Your task to perform on an android device: Go to Yahoo.com Image 0: 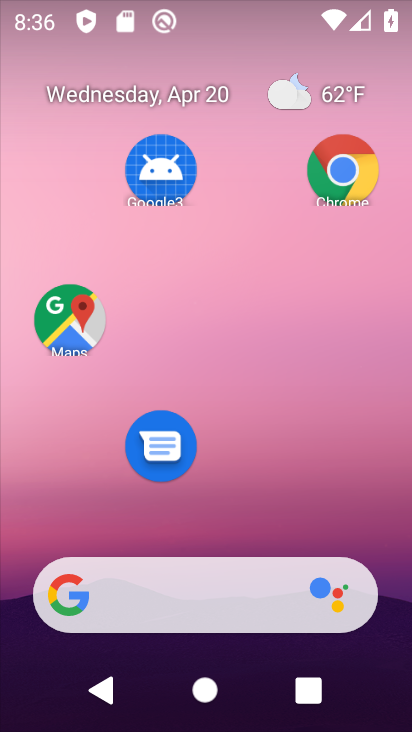
Step 0: click (342, 169)
Your task to perform on an android device: Go to Yahoo.com Image 1: 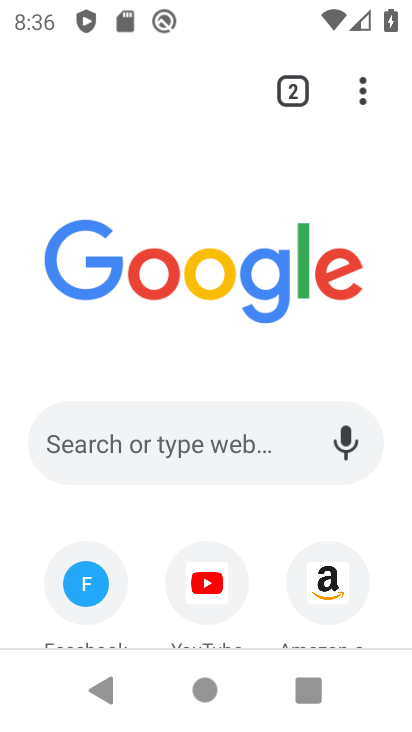
Step 1: drag from (160, 513) to (158, 169)
Your task to perform on an android device: Go to Yahoo.com Image 2: 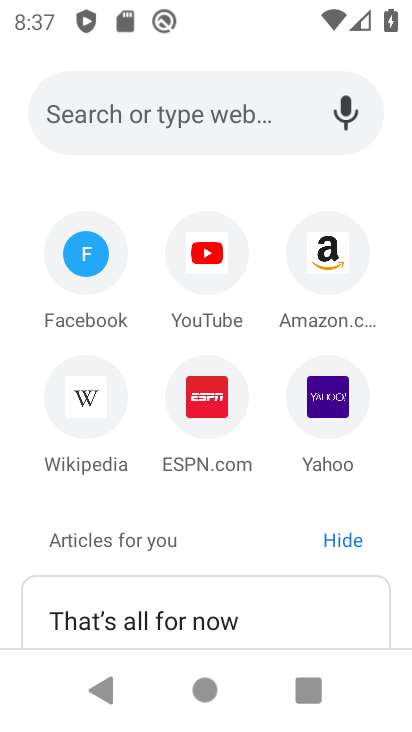
Step 2: click (327, 393)
Your task to perform on an android device: Go to Yahoo.com Image 3: 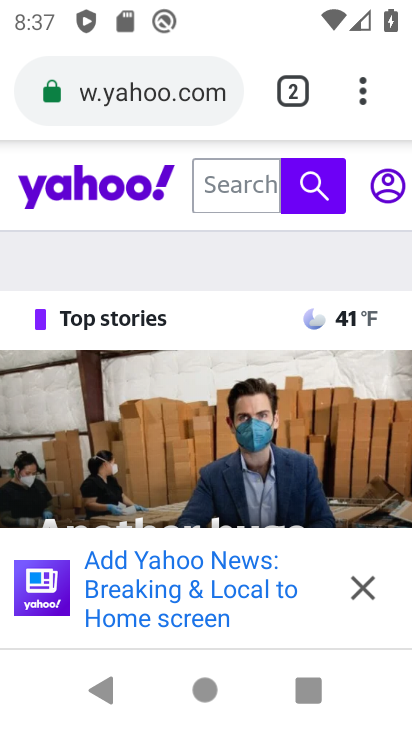
Step 3: task complete